Your task to perform on an android device: What's the weather today? Image 0: 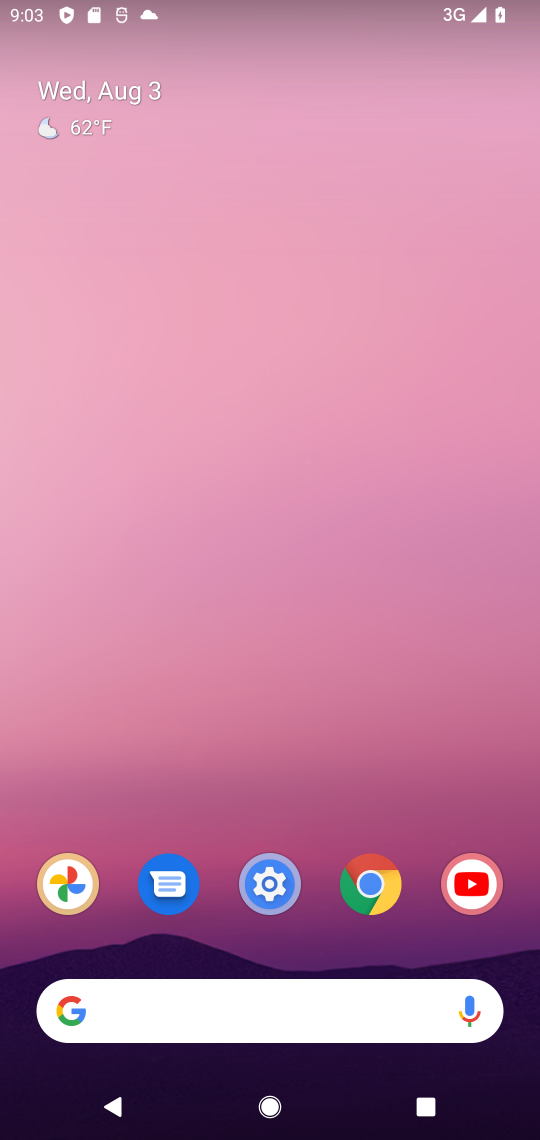
Step 0: click (255, 506)
Your task to perform on an android device: What's the weather today? Image 1: 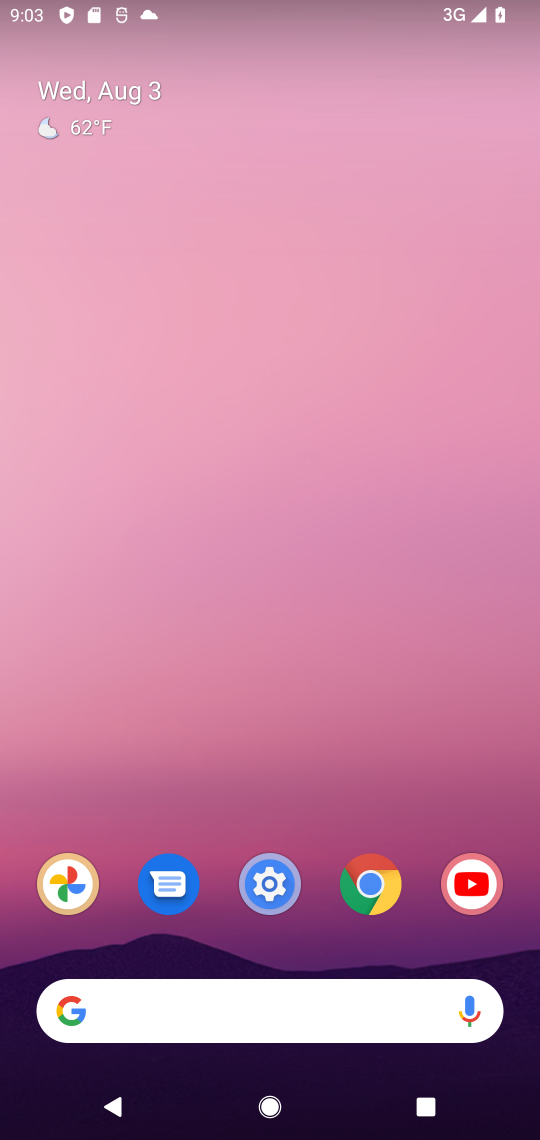
Step 1: click (215, 1010)
Your task to perform on an android device: What's the weather today? Image 2: 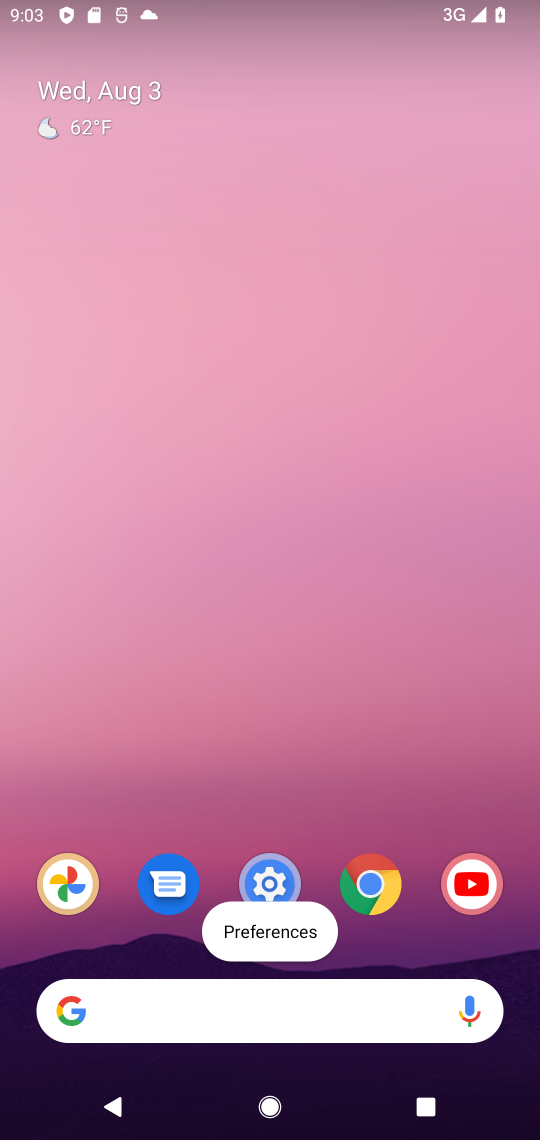
Step 2: click (243, 1023)
Your task to perform on an android device: What's the weather today? Image 3: 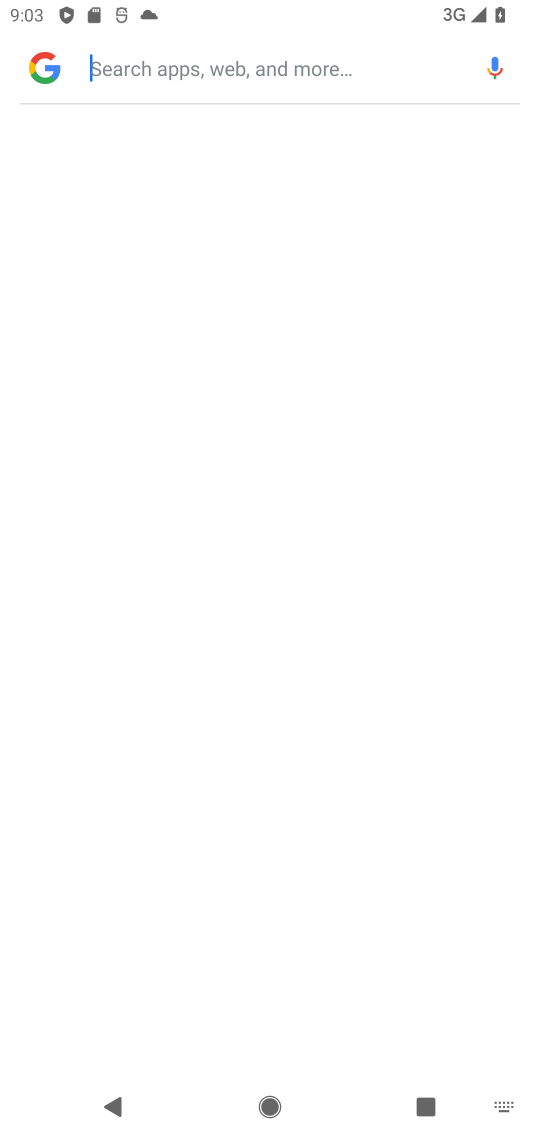
Step 3: click (242, 1013)
Your task to perform on an android device: What's the weather today? Image 4: 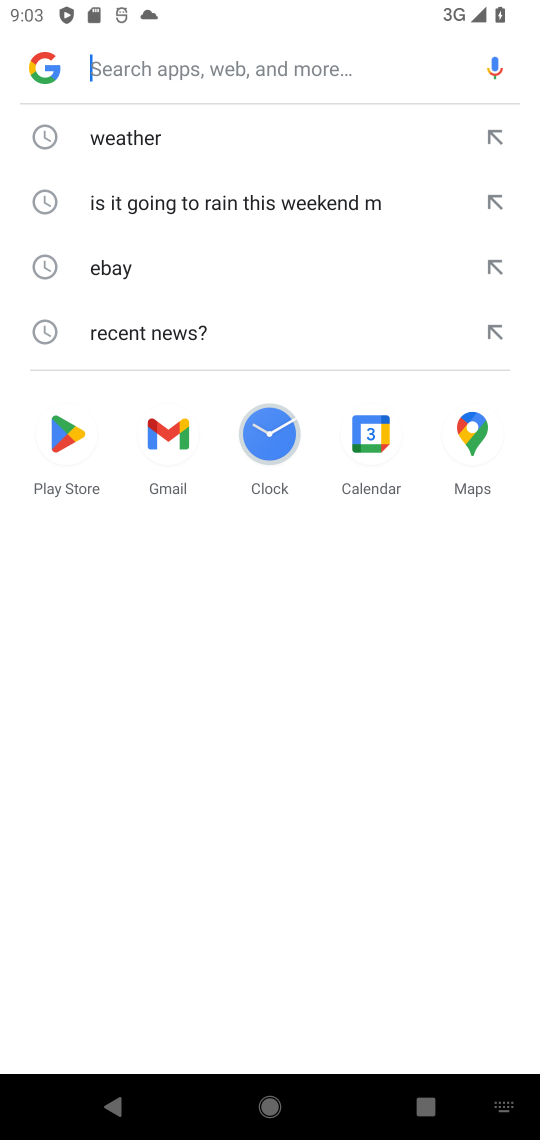
Step 4: click (145, 131)
Your task to perform on an android device: What's the weather today? Image 5: 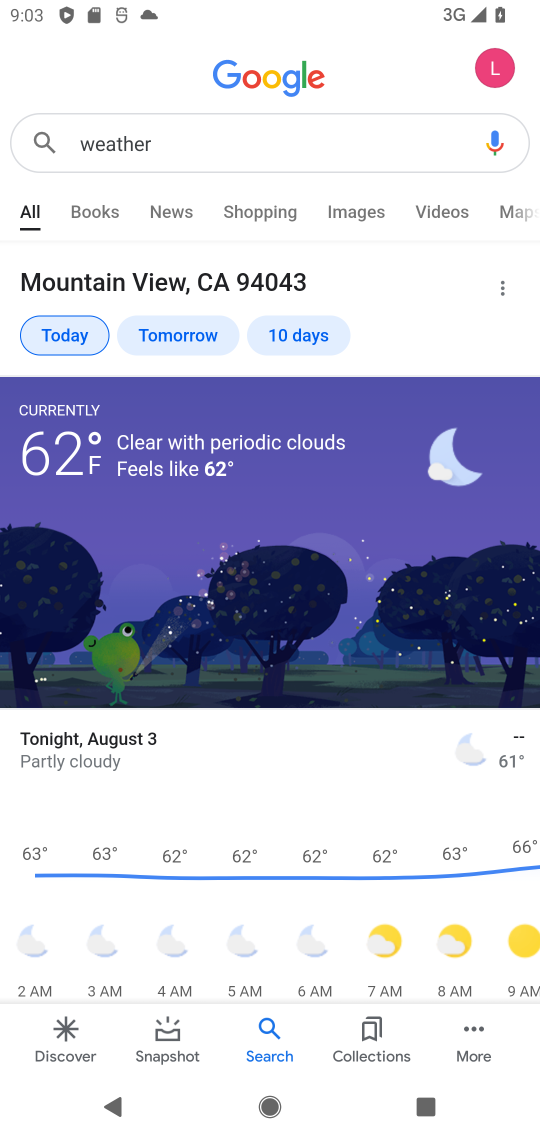
Step 5: task complete